Your task to perform on an android device: Go to Amazon Image 0: 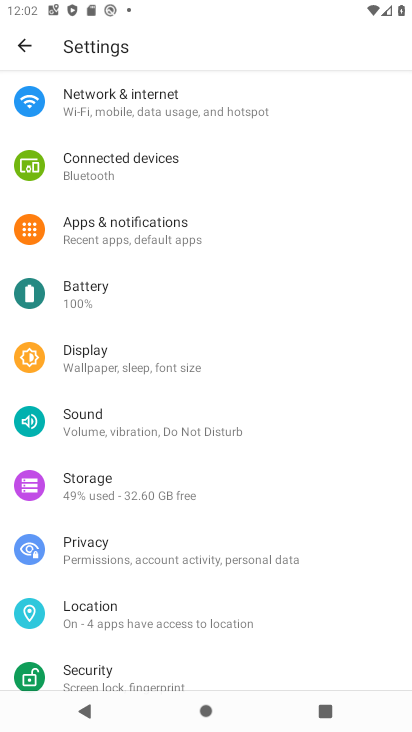
Step 0: press home button
Your task to perform on an android device: Go to Amazon Image 1: 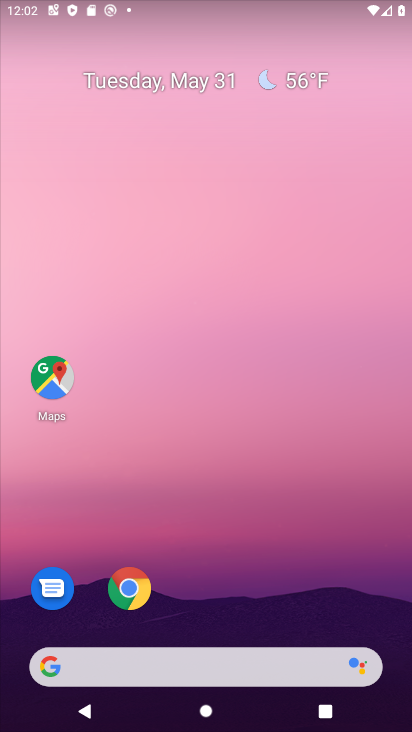
Step 1: click (123, 600)
Your task to perform on an android device: Go to Amazon Image 2: 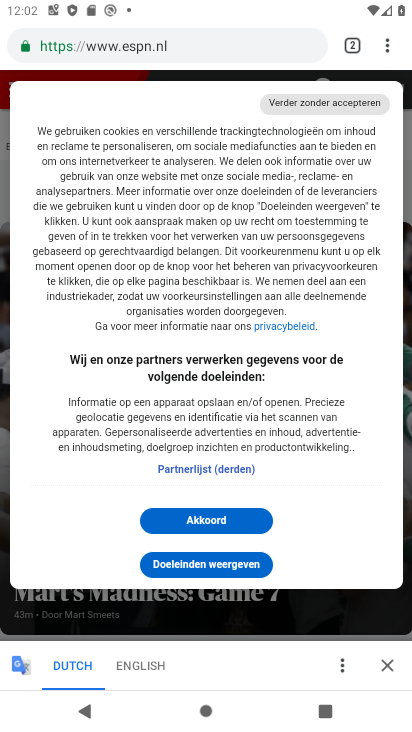
Step 2: click (349, 52)
Your task to perform on an android device: Go to Amazon Image 3: 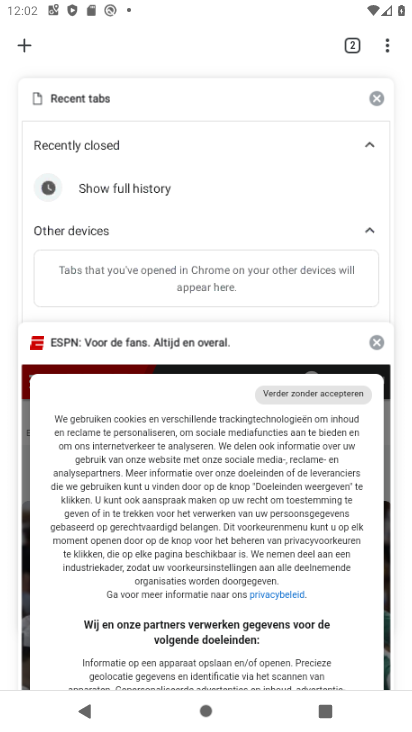
Step 3: click (377, 345)
Your task to perform on an android device: Go to Amazon Image 4: 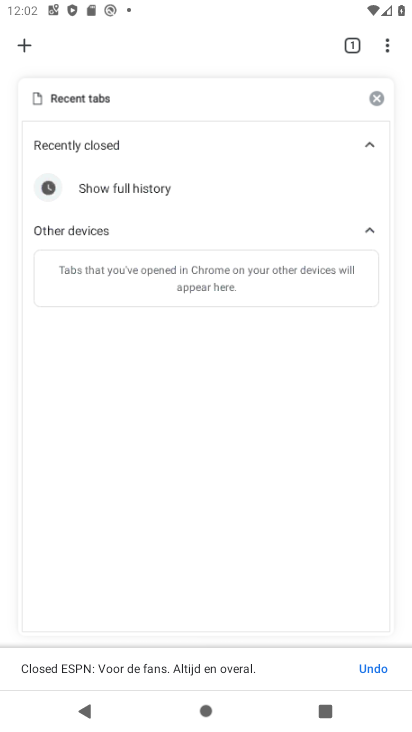
Step 4: click (371, 111)
Your task to perform on an android device: Go to Amazon Image 5: 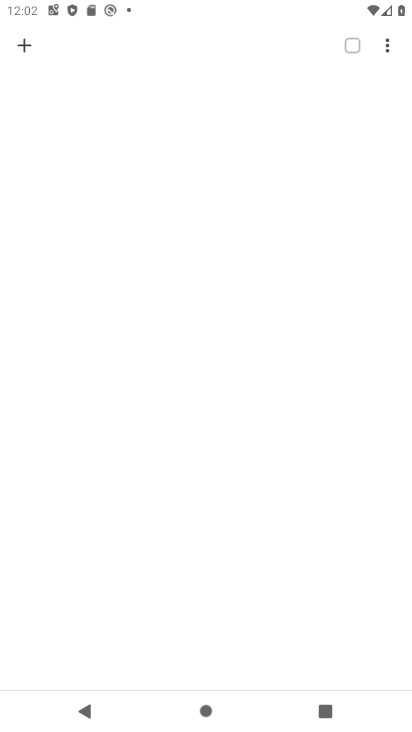
Step 5: click (19, 48)
Your task to perform on an android device: Go to Amazon Image 6: 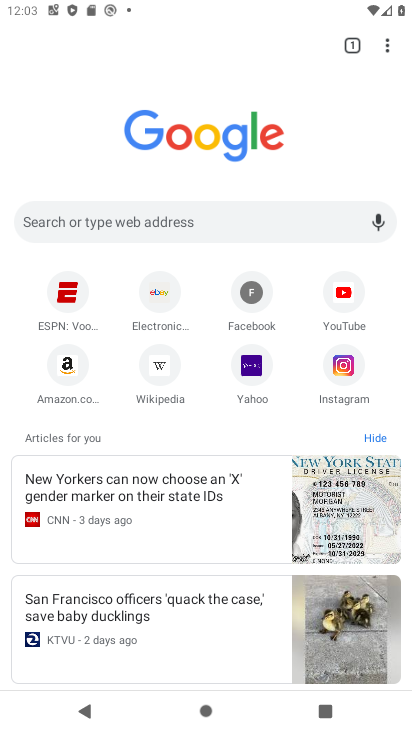
Step 6: click (71, 384)
Your task to perform on an android device: Go to Amazon Image 7: 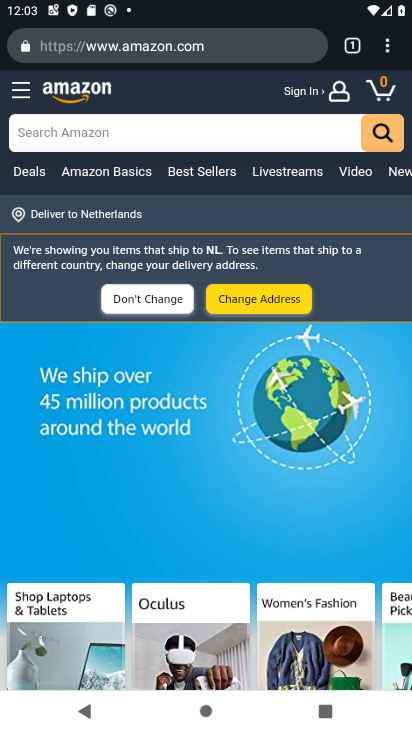
Step 7: task complete